Your task to perform on an android device: Go to notification settings Image 0: 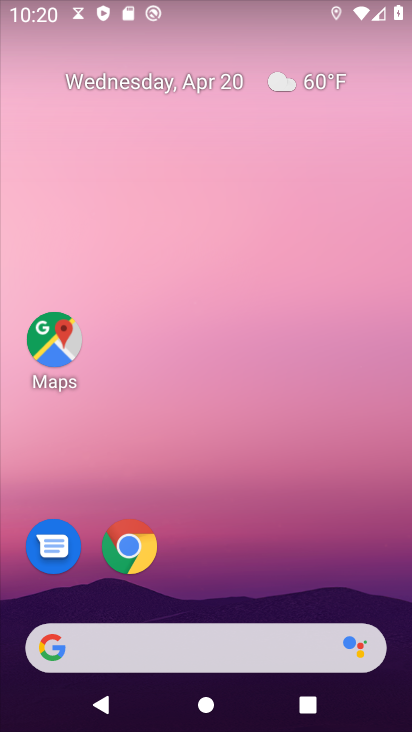
Step 0: drag from (214, 434) to (208, 81)
Your task to perform on an android device: Go to notification settings Image 1: 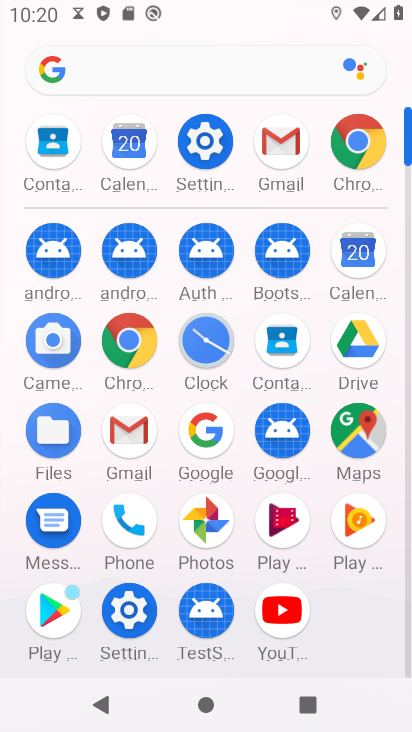
Step 1: click (211, 137)
Your task to perform on an android device: Go to notification settings Image 2: 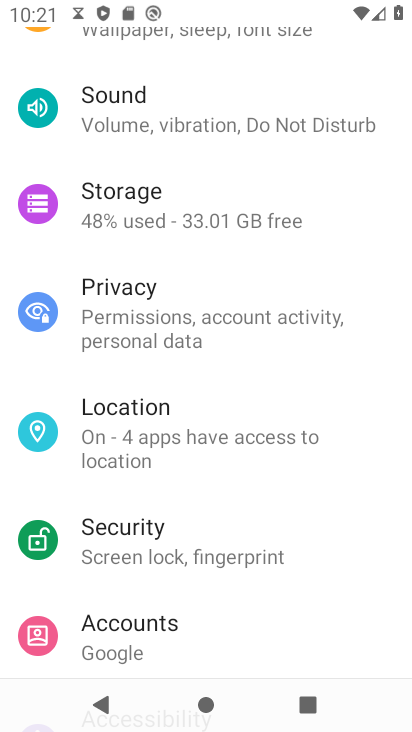
Step 2: drag from (233, 170) to (198, 611)
Your task to perform on an android device: Go to notification settings Image 3: 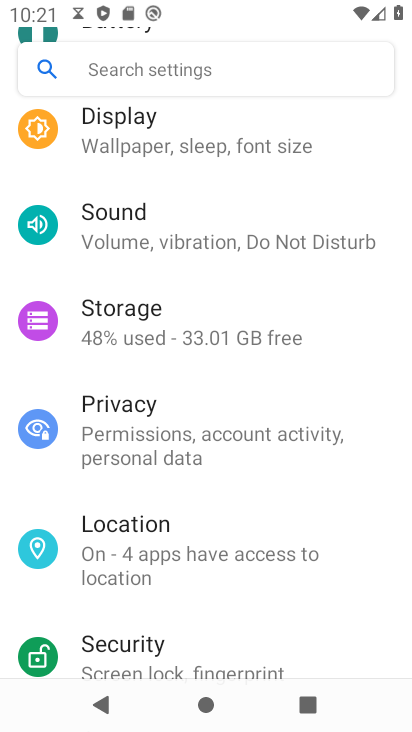
Step 3: drag from (194, 186) to (160, 666)
Your task to perform on an android device: Go to notification settings Image 4: 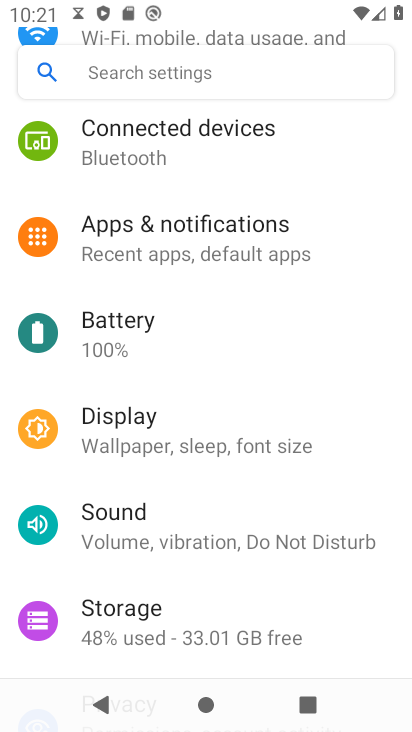
Step 4: click (185, 238)
Your task to perform on an android device: Go to notification settings Image 5: 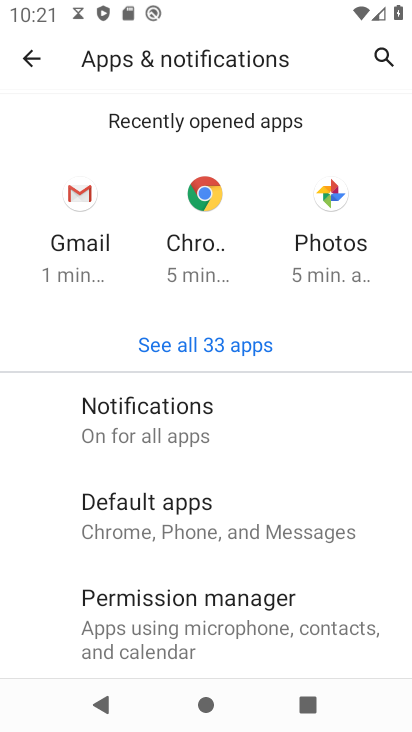
Step 5: task complete